Your task to perform on an android device: show emergency info Image 0: 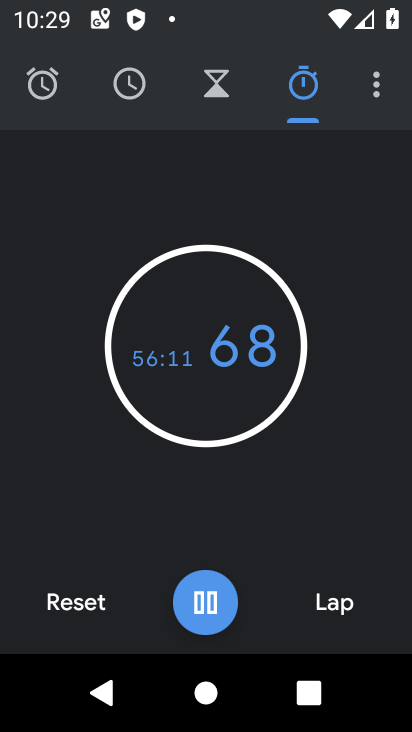
Step 0: press home button
Your task to perform on an android device: show emergency info Image 1: 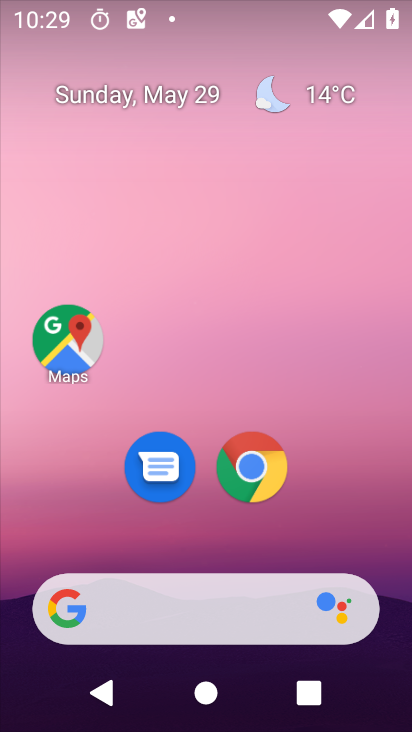
Step 1: drag from (200, 541) to (202, 176)
Your task to perform on an android device: show emergency info Image 2: 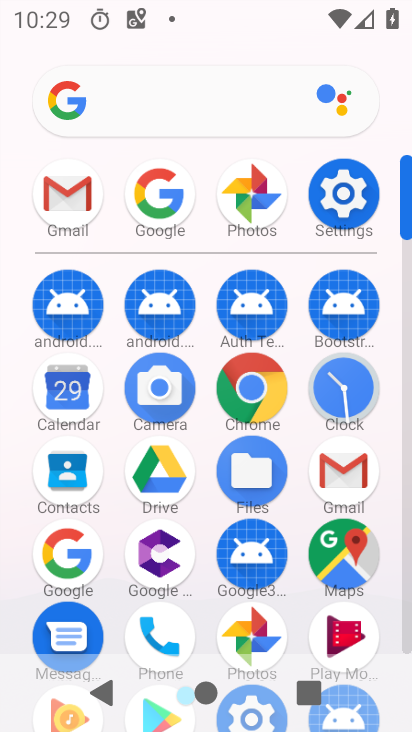
Step 2: click (323, 189)
Your task to perform on an android device: show emergency info Image 3: 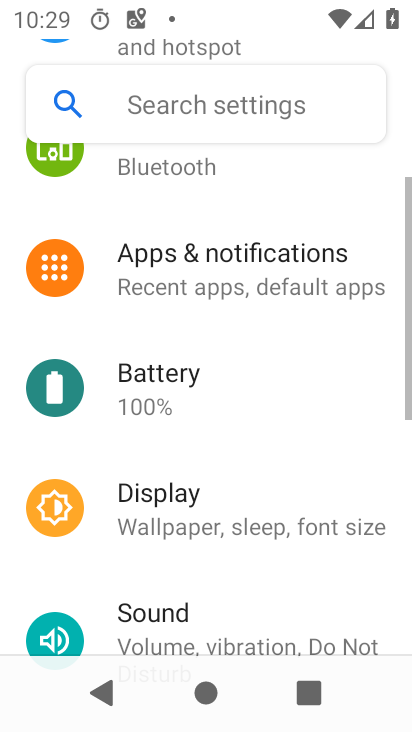
Step 3: drag from (142, 531) to (123, 237)
Your task to perform on an android device: show emergency info Image 4: 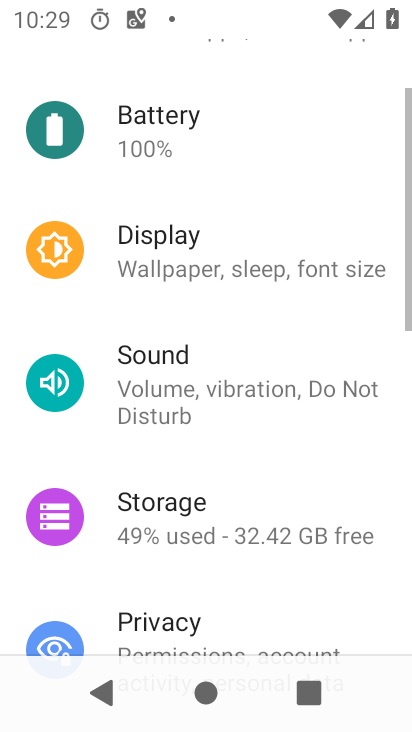
Step 4: drag from (164, 551) to (164, 264)
Your task to perform on an android device: show emergency info Image 5: 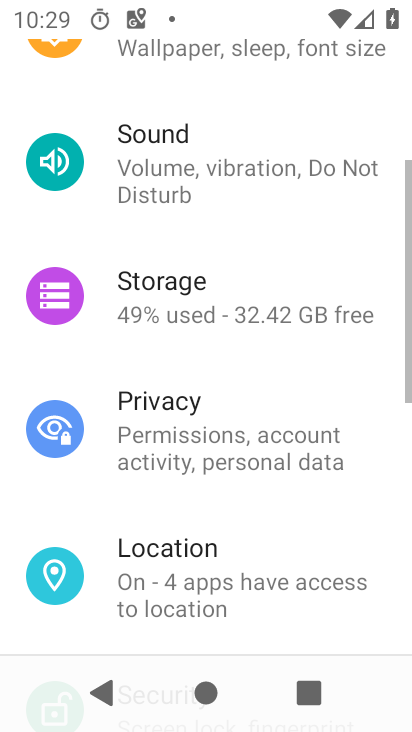
Step 5: drag from (210, 515) to (205, 207)
Your task to perform on an android device: show emergency info Image 6: 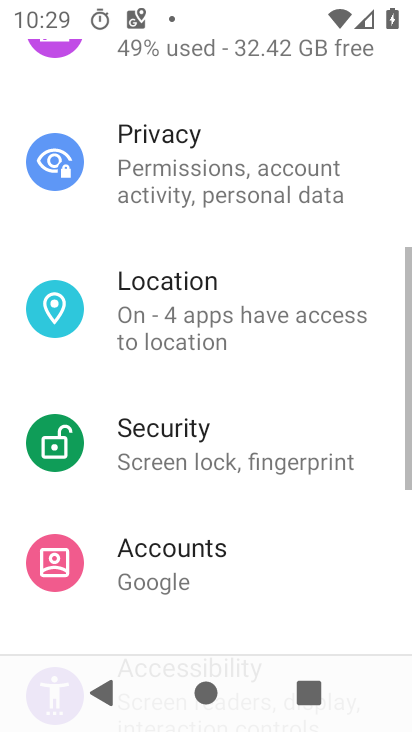
Step 6: drag from (211, 526) to (199, 278)
Your task to perform on an android device: show emergency info Image 7: 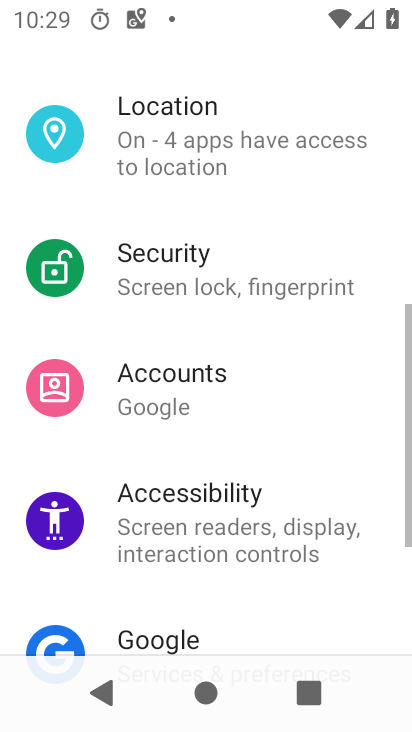
Step 7: drag from (214, 550) to (197, 257)
Your task to perform on an android device: show emergency info Image 8: 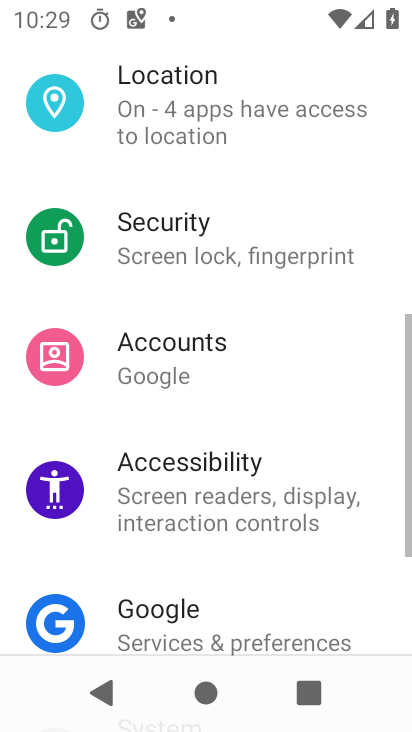
Step 8: drag from (198, 527) to (177, 275)
Your task to perform on an android device: show emergency info Image 9: 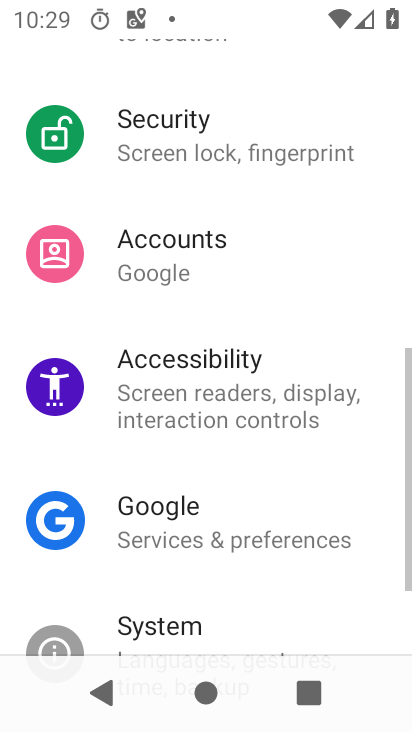
Step 9: drag from (183, 540) to (154, 273)
Your task to perform on an android device: show emergency info Image 10: 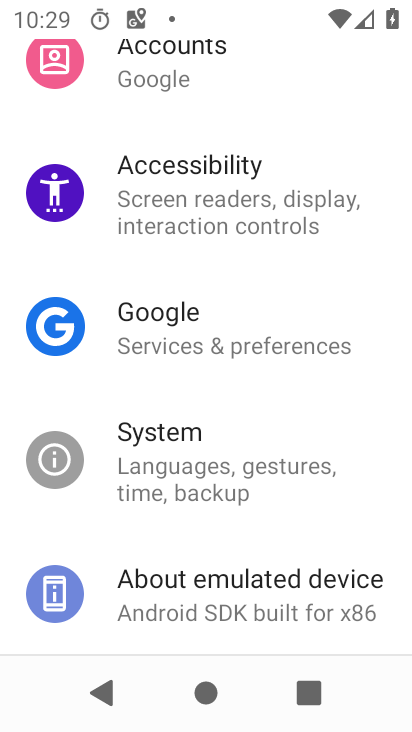
Step 10: drag from (174, 569) to (171, 298)
Your task to perform on an android device: show emergency info Image 11: 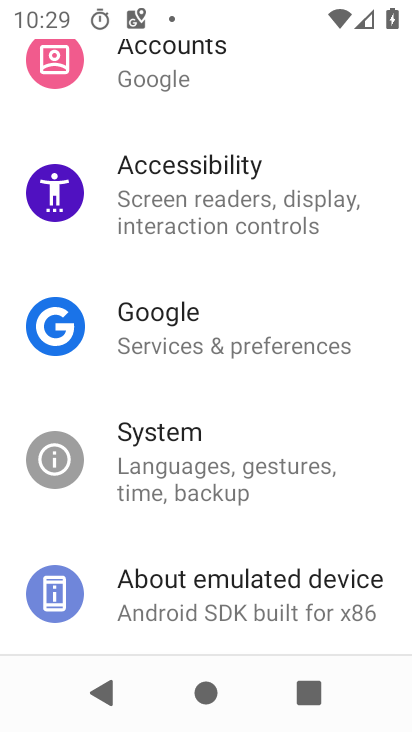
Step 11: click (162, 578)
Your task to perform on an android device: show emergency info Image 12: 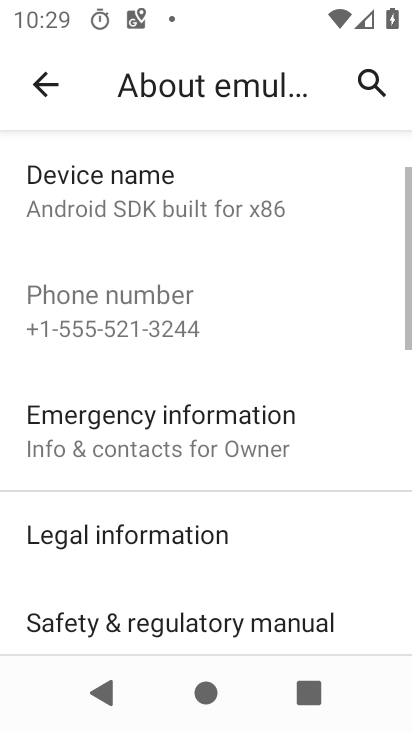
Step 12: click (135, 410)
Your task to perform on an android device: show emergency info Image 13: 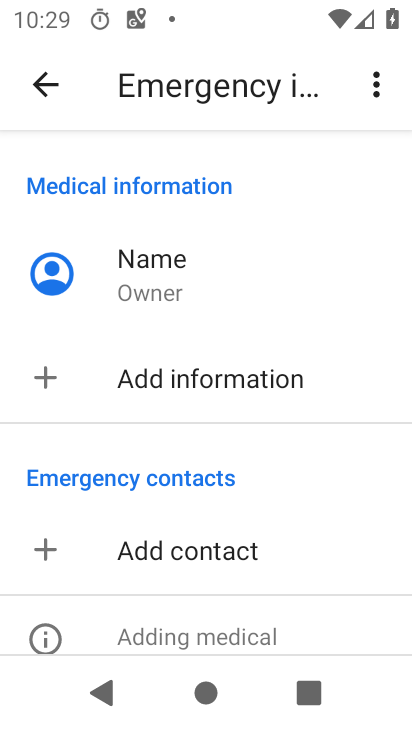
Step 13: task complete